Your task to perform on an android device: clear history in the chrome app Image 0: 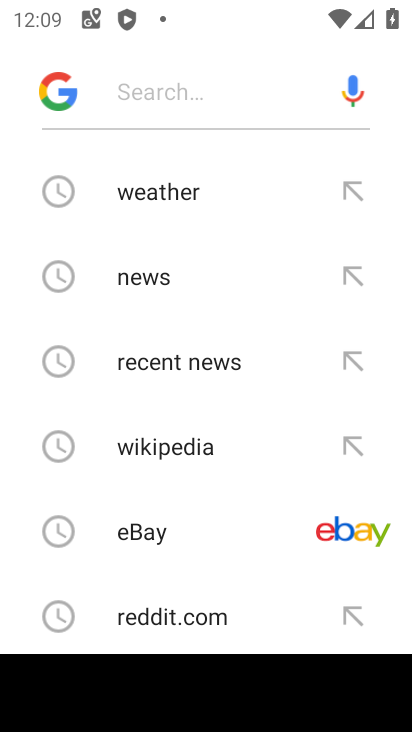
Step 0: press home button
Your task to perform on an android device: clear history in the chrome app Image 1: 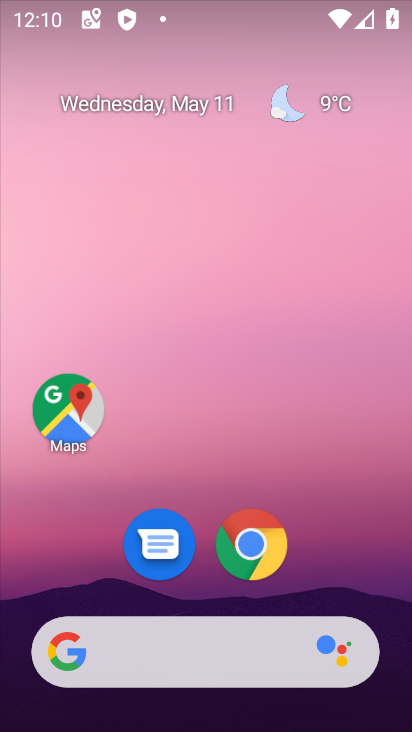
Step 1: click (248, 542)
Your task to perform on an android device: clear history in the chrome app Image 2: 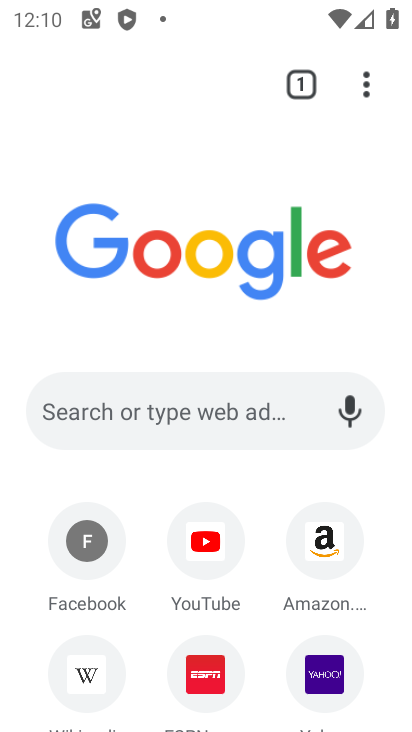
Step 2: click (365, 92)
Your task to perform on an android device: clear history in the chrome app Image 3: 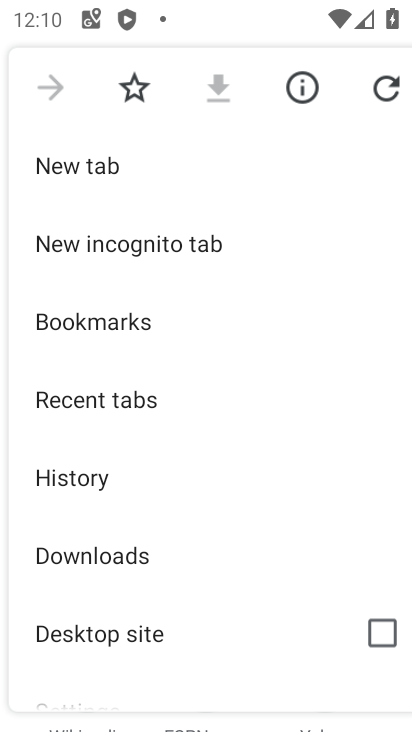
Step 3: click (66, 465)
Your task to perform on an android device: clear history in the chrome app Image 4: 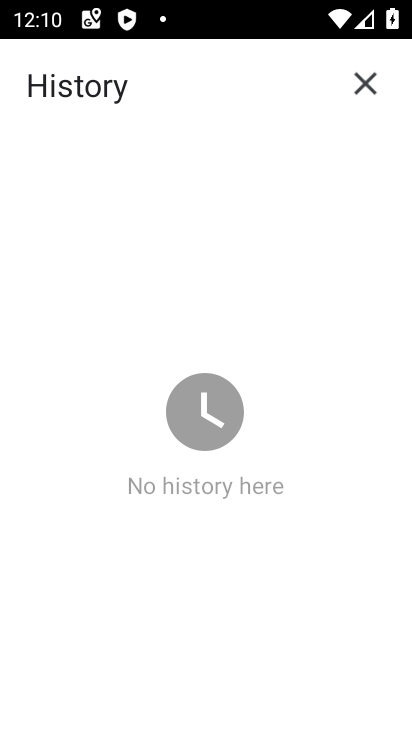
Step 4: task complete